Your task to perform on an android device: install app "Pandora - Music & Podcasts" Image 0: 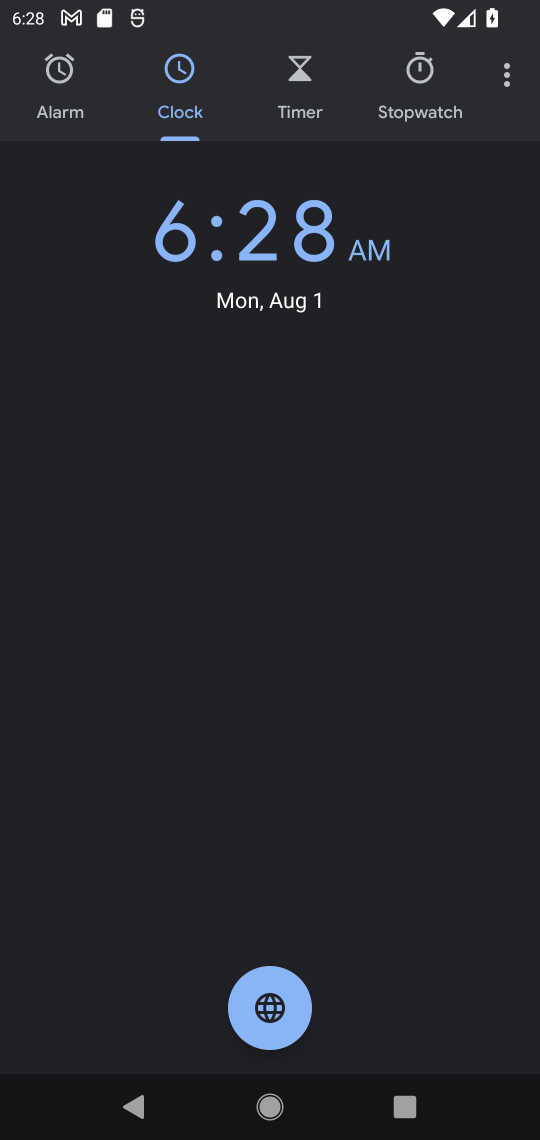
Step 0: press back button
Your task to perform on an android device: install app "Pandora - Music & Podcasts" Image 1: 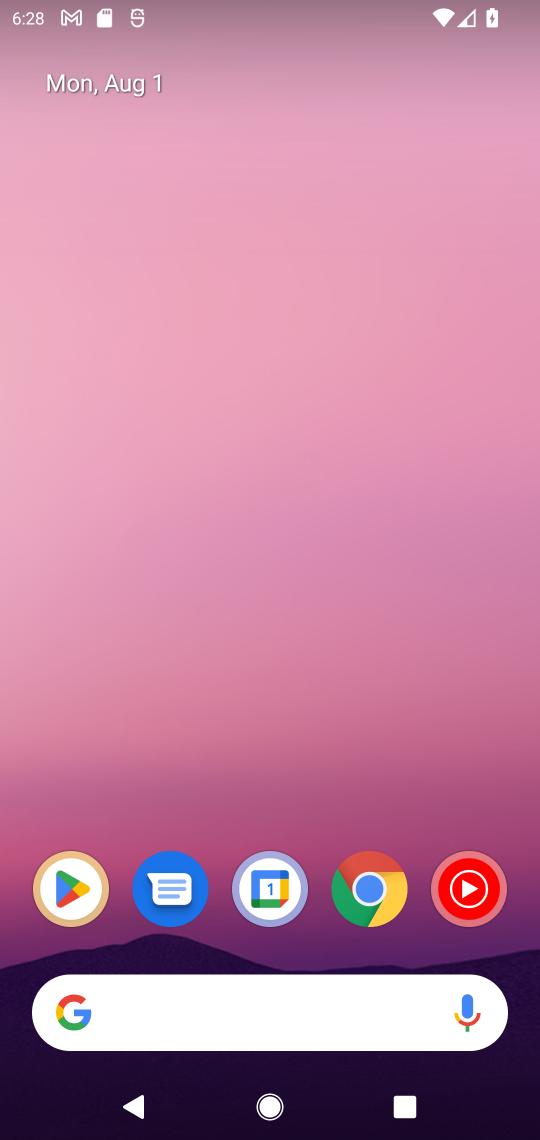
Step 1: drag from (291, 670) to (274, 261)
Your task to perform on an android device: install app "Pandora - Music & Podcasts" Image 2: 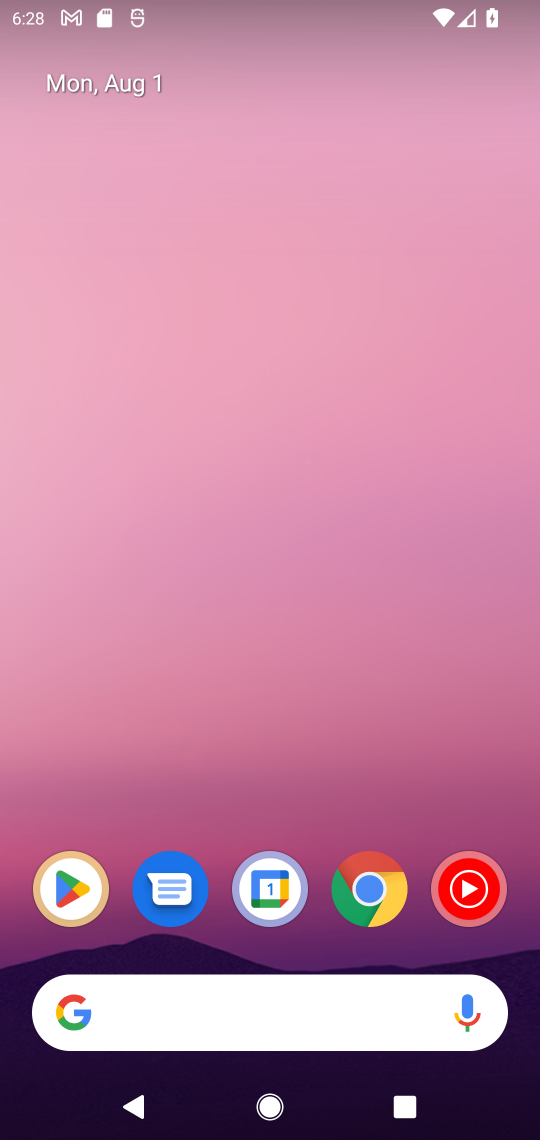
Step 2: drag from (253, 415) to (210, 247)
Your task to perform on an android device: install app "Pandora - Music & Podcasts" Image 3: 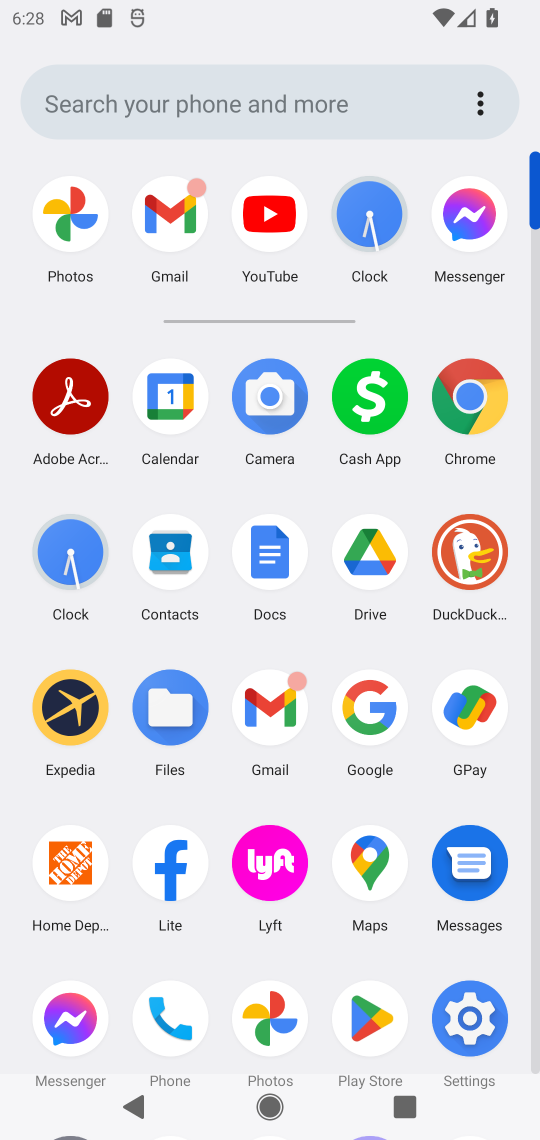
Step 3: drag from (253, 752) to (228, 311)
Your task to perform on an android device: install app "Pandora - Music & Podcasts" Image 4: 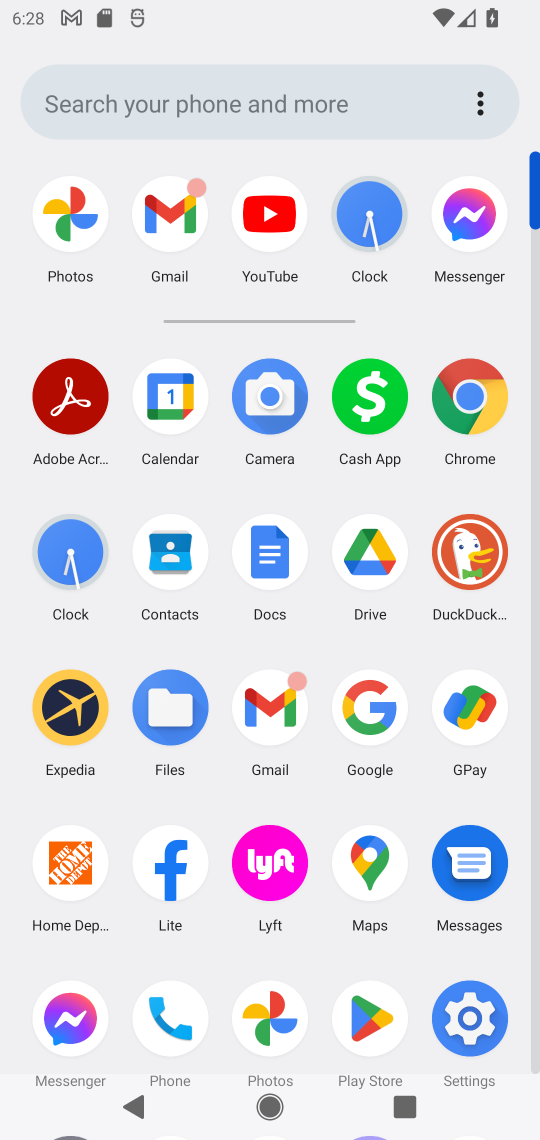
Step 4: click (366, 1024)
Your task to perform on an android device: install app "Pandora - Music & Podcasts" Image 5: 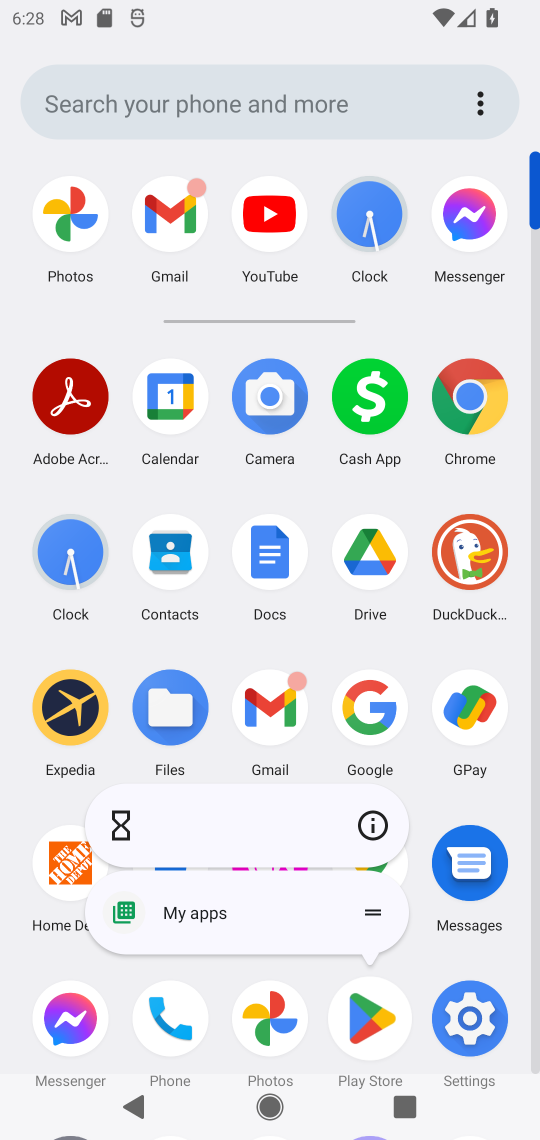
Step 5: click (368, 1025)
Your task to perform on an android device: install app "Pandora - Music & Podcasts" Image 6: 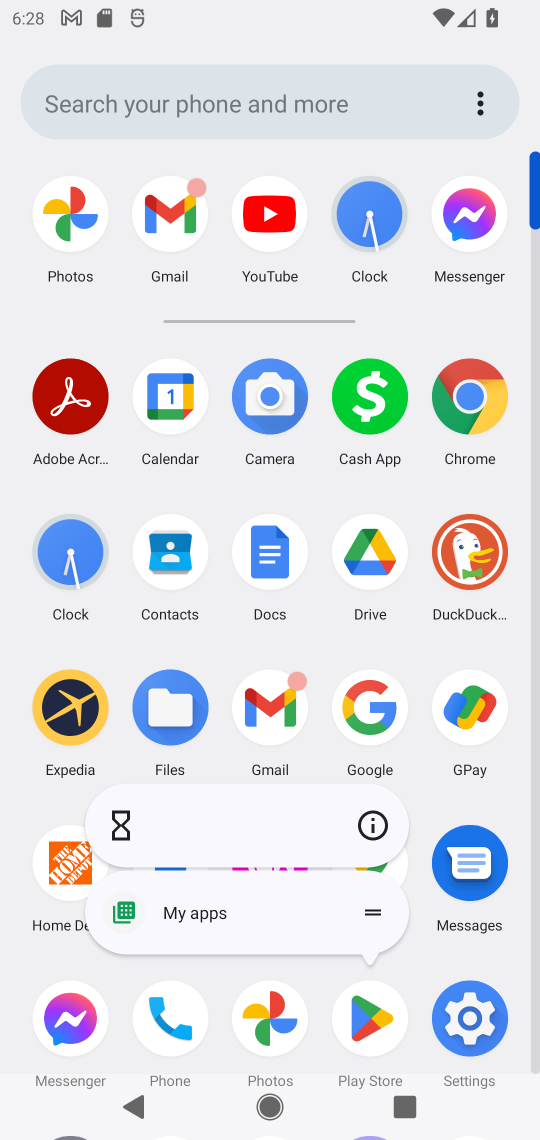
Step 6: click (374, 1034)
Your task to perform on an android device: install app "Pandora - Music & Podcasts" Image 7: 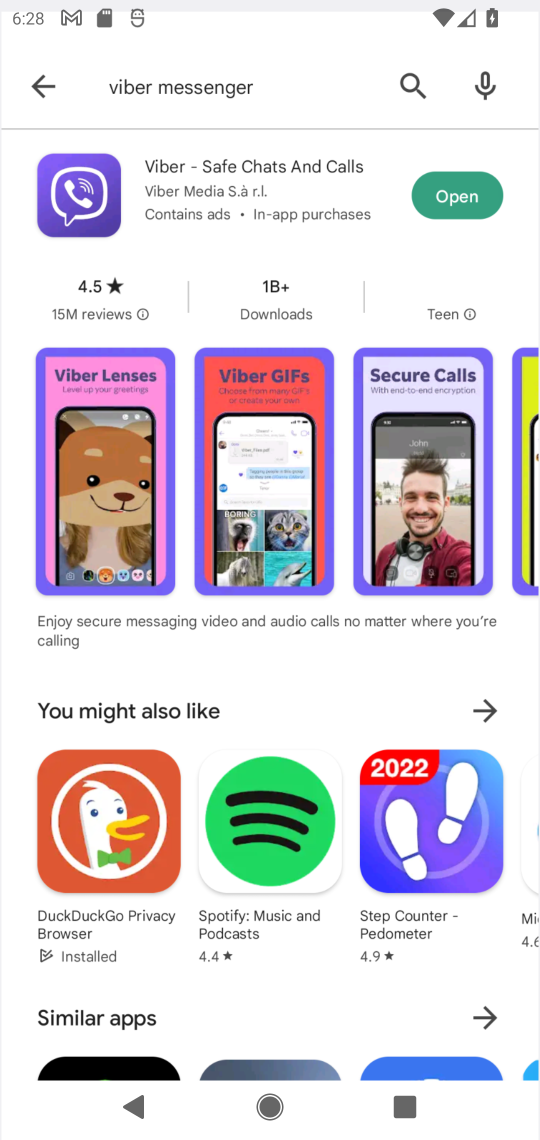
Step 7: click (375, 1041)
Your task to perform on an android device: install app "Pandora - Music & Podcasts" Image 8: 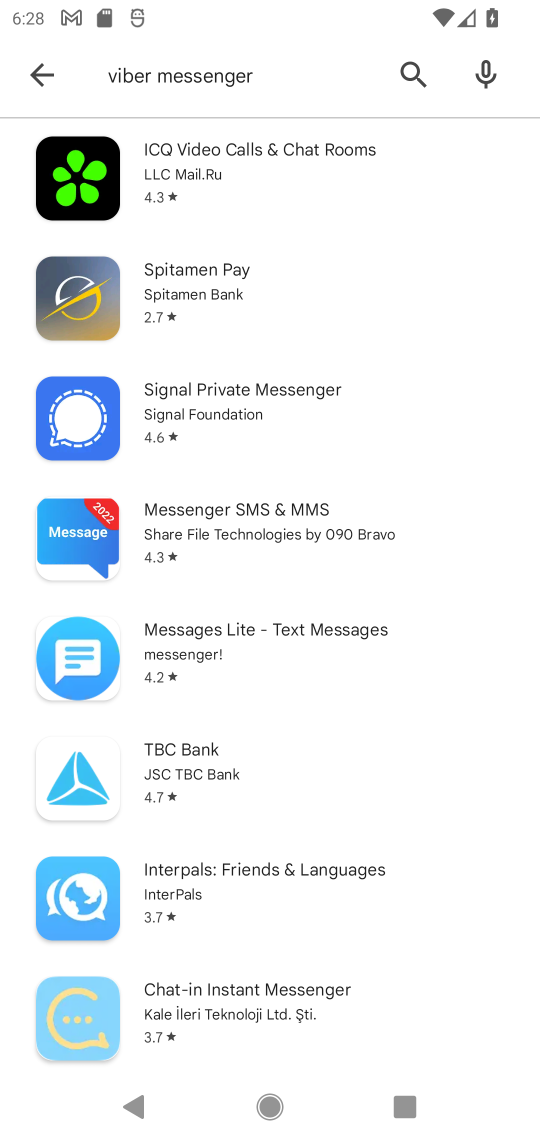
Step 8: click (37, 70)
Your task to perform on an android device: install app "Pandora - Music & Podcasts" Image 9: 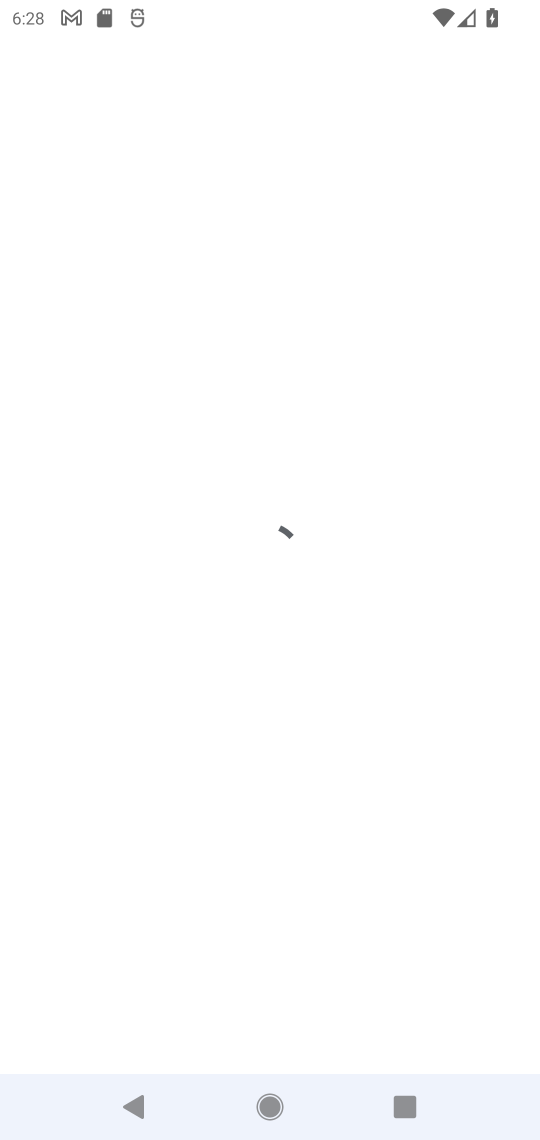
Step 9: click (162, 72)
Your task to perform on an android device: install app "Pandora - Music & Podcasts" Image 10: 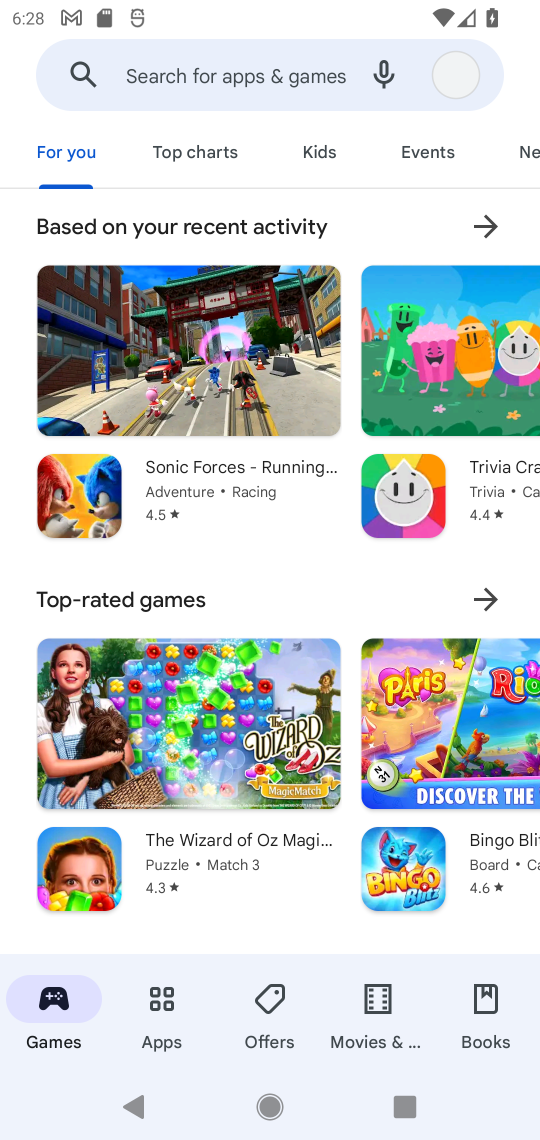
Step 10: click (160, 70)
Your task to perform on an android device: install app "Pandora - Music & Podcasts" Image 11: 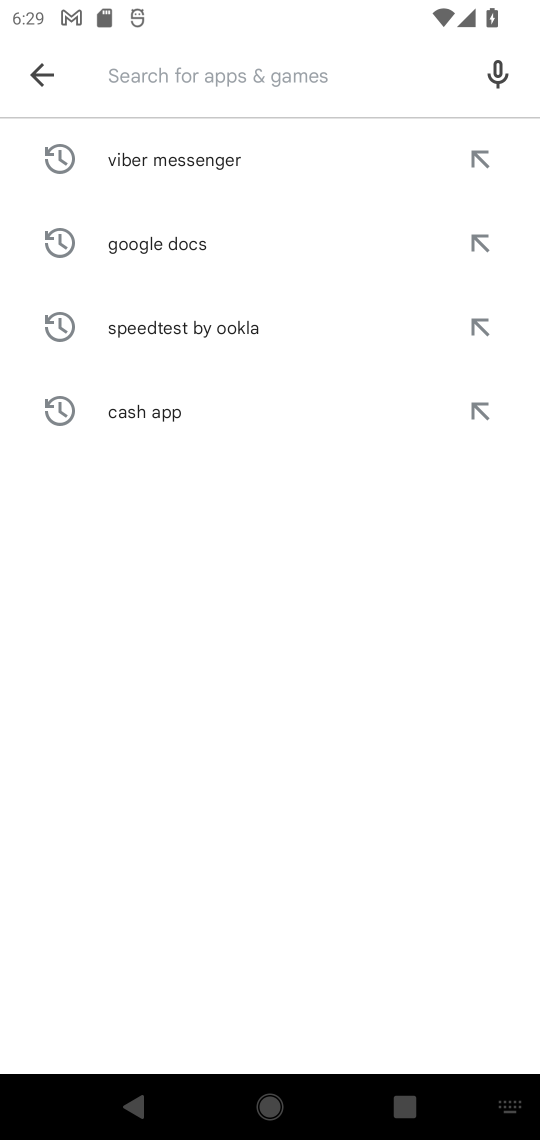
Step 11: type "Pandora-"
Your task to perform on an android device: install app "Pandora - Music & Podcasts" Image 12: 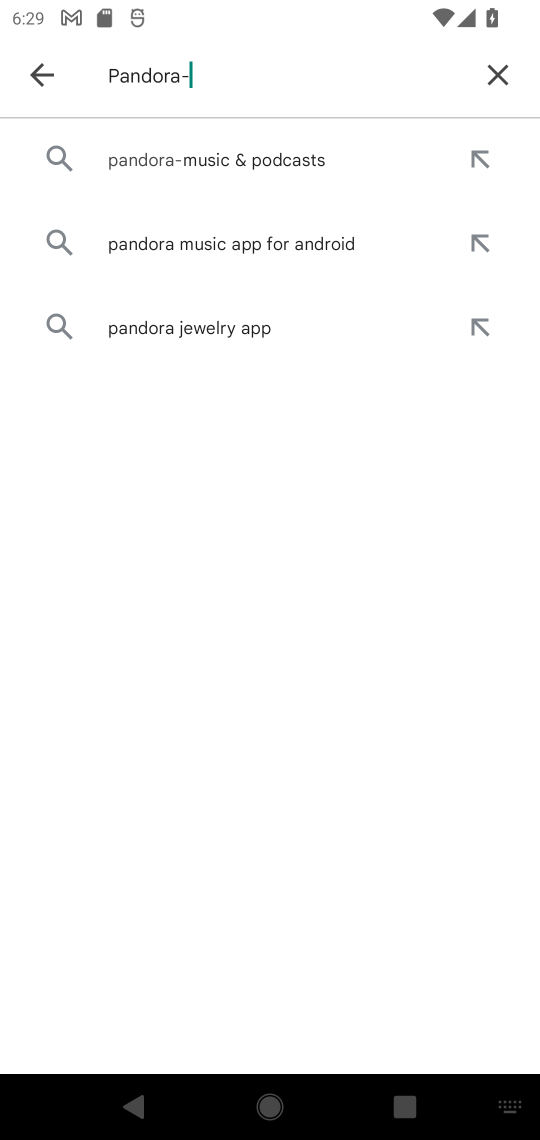
Step 12: click (290, 154)
Your task to perform on an android device: install app "Pandora - Music & Podcasts" Image 13: 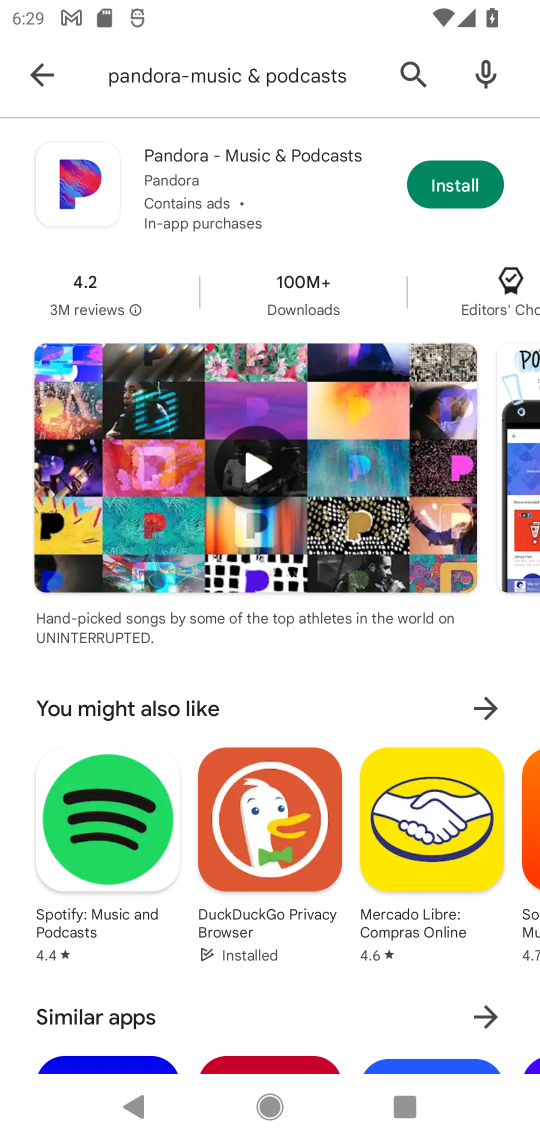
Step 13: click (459, 180)
Your task to perform on an android device: install app "Pandora - Music & Podcasts" Image 14: 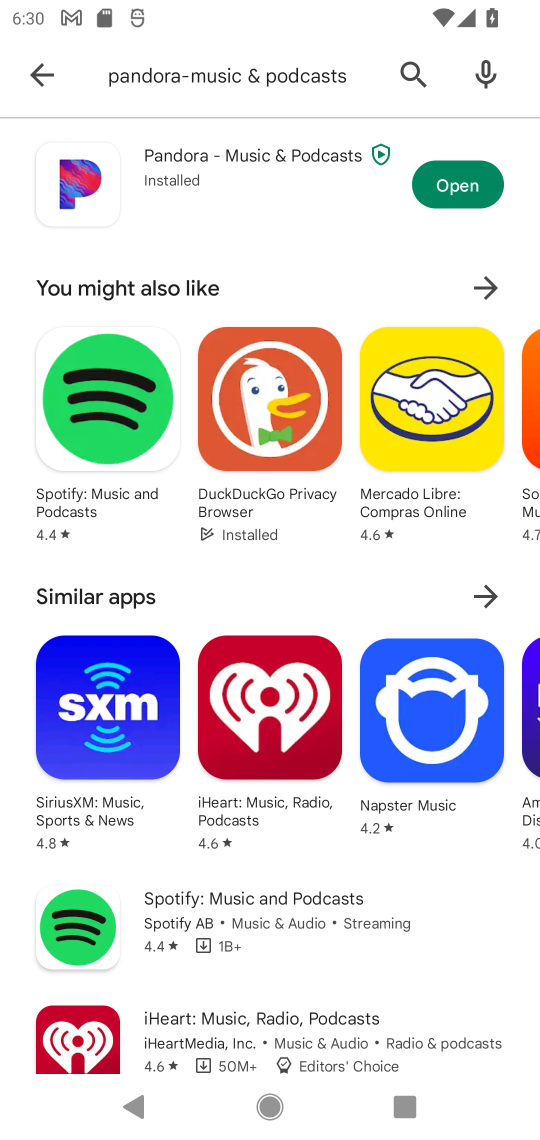
Step 14: click (496, 177)
Your task to perform on an android device: install app "Pandora - Music & Podcasts" Image 15: 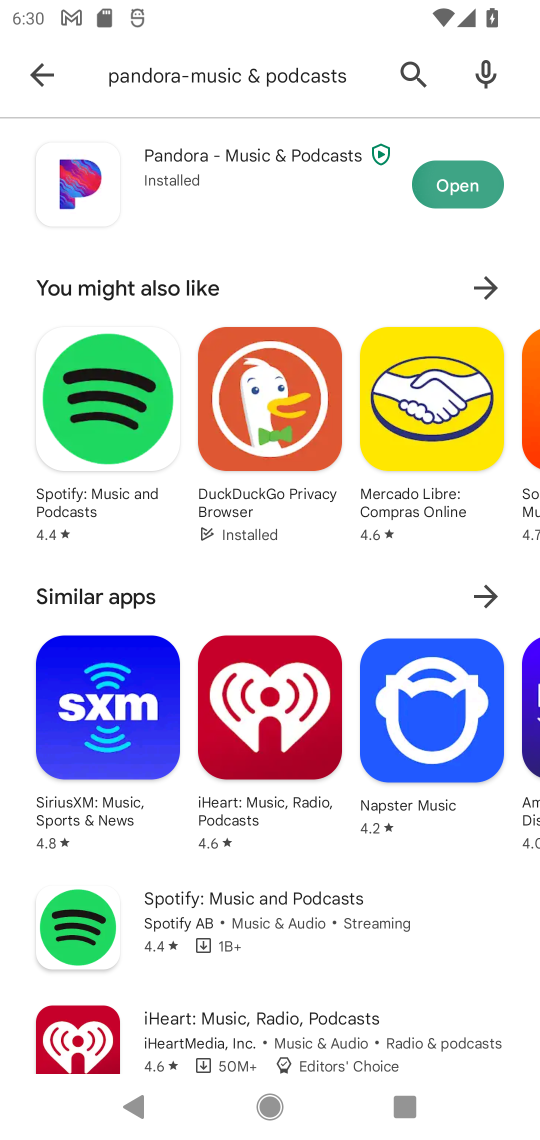
Step 15: click (450, 177)
Your task to perform on an android device: install app "Pandora - Music & Podcasts" Image 16: 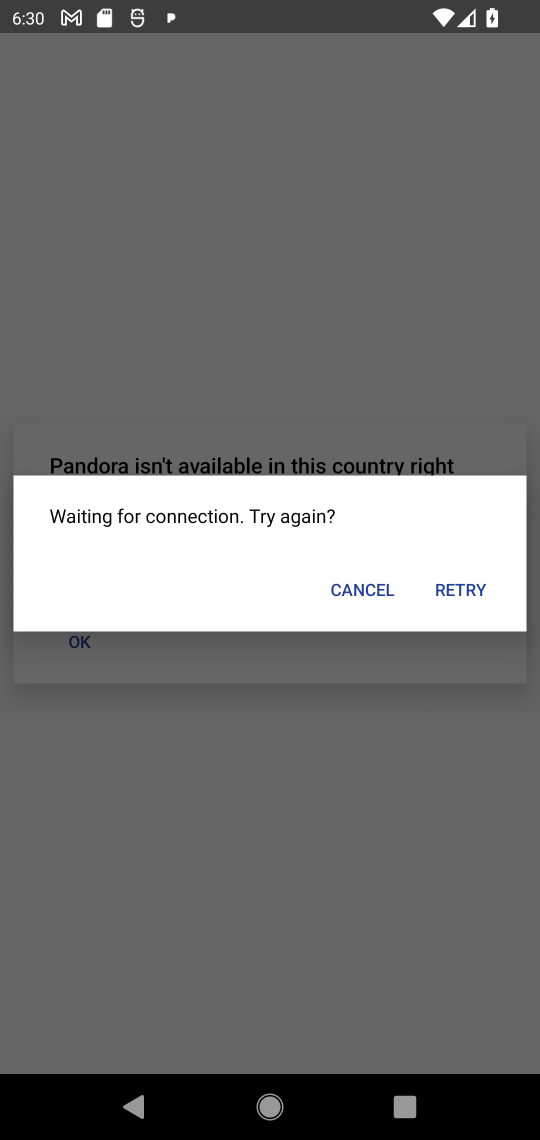
Step 16: click (441, 582)
Your task to perform on an android device: install app "Pandora - Music & Podcasts" Image 17: 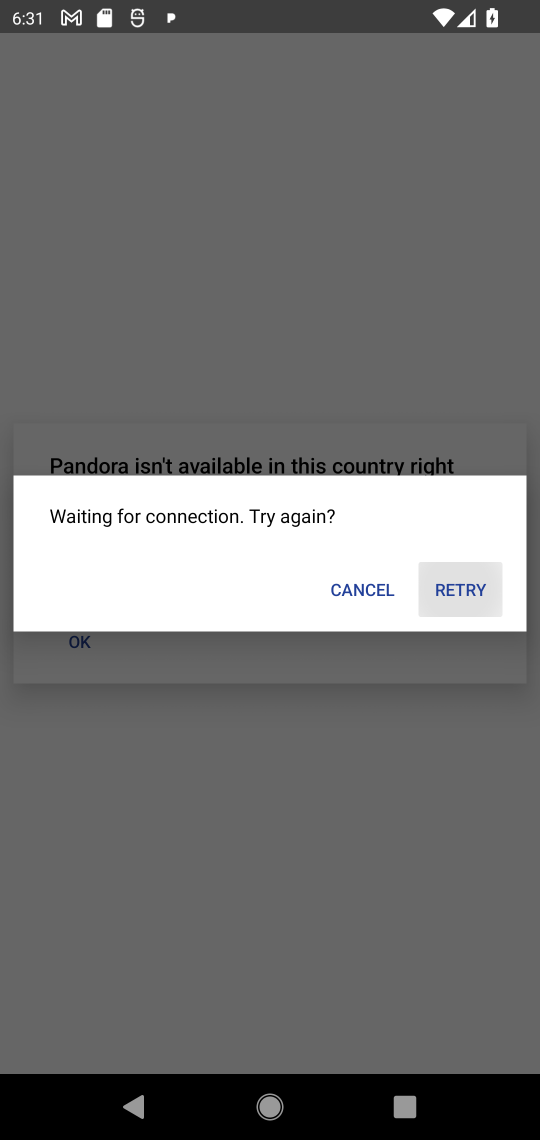
Step 17: click (444, 583)
Your task to perform on an android device: install app "Pandora - Music & Podcasts" Image 18: 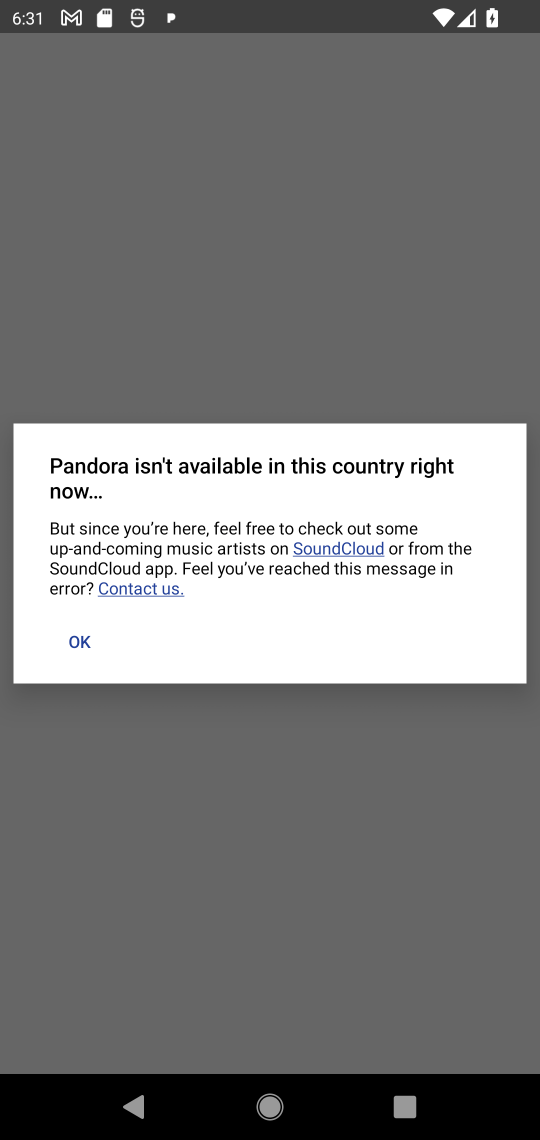
Step 18: click (79, 641)
Your task to perform on an android device: install app "Pandora - Music & Podcasts" Image 19: 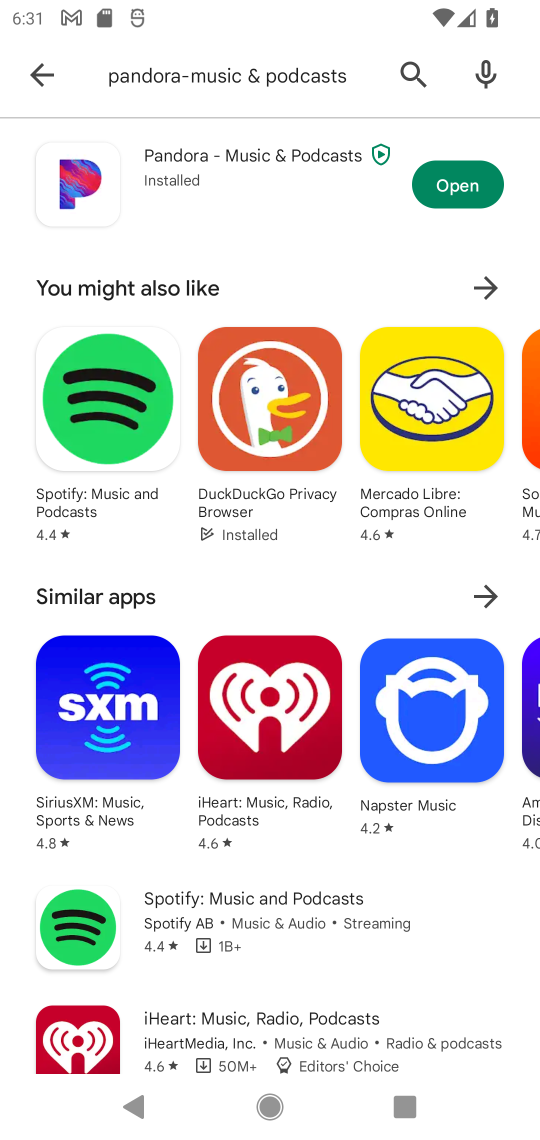
Step 19: click (443, 185)
Your task to perform on an android device: install app "Pandora - Music & Podcasts" Image 20: 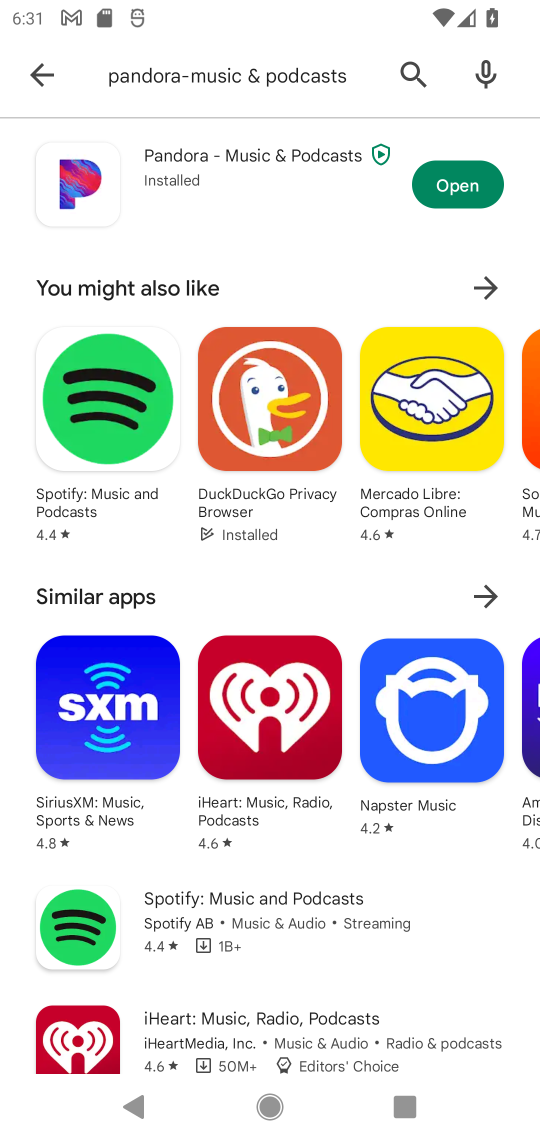
Step 20: click (444, 194)
Your task to perform on an android device: install app "Pandora - Music & Podcasts" Image 21: 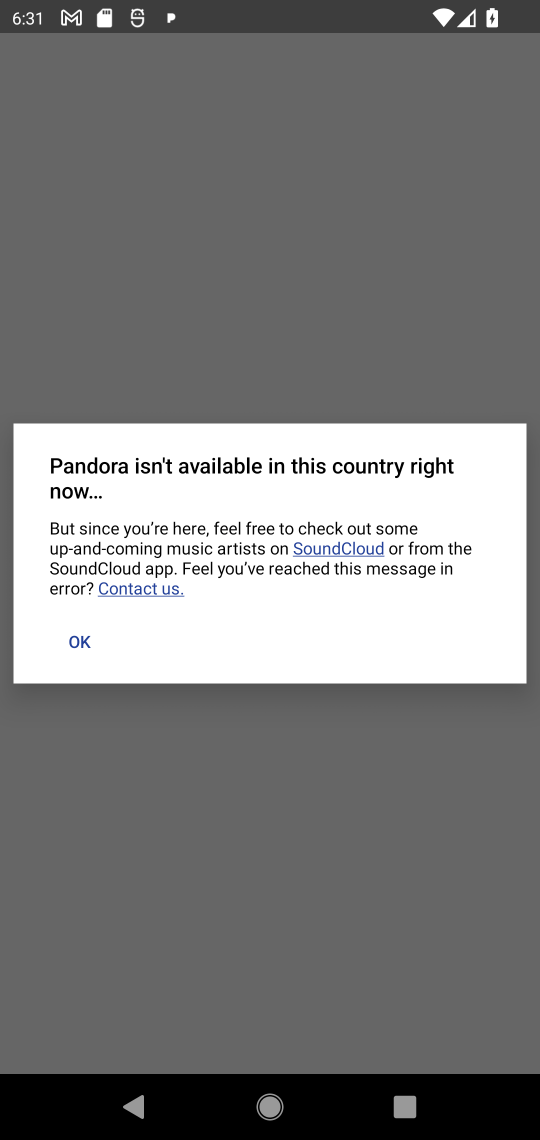
Step 21: click (85, 639)
Your task to perform on an android device: install app "Pandora - Music & Podcasts" Image 22: 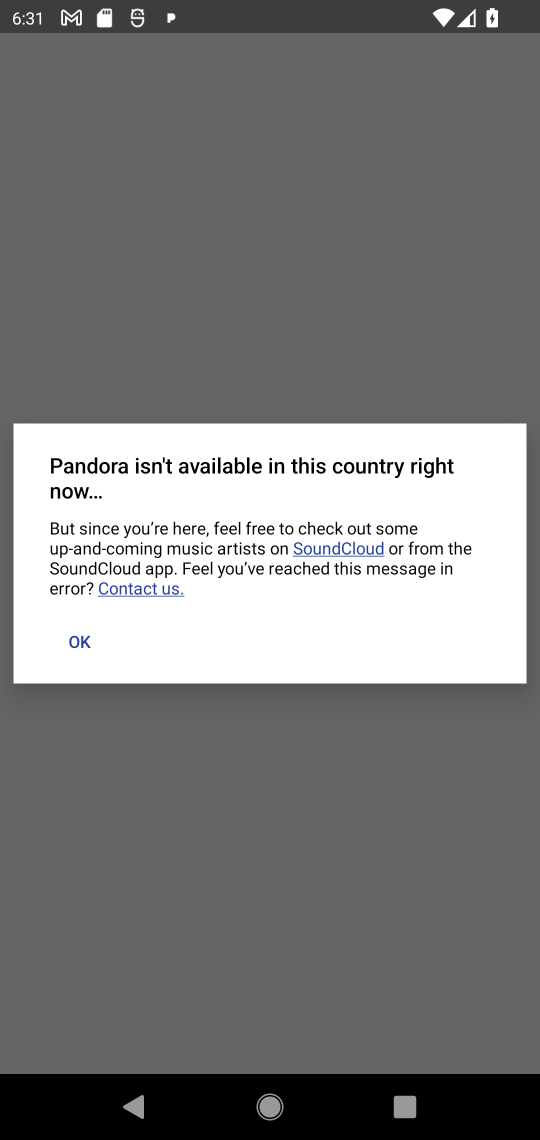
Step 22: click (82, 645)
Your task to perform on an android device: install app "Pandora - Music & Podcasts" Image 23: 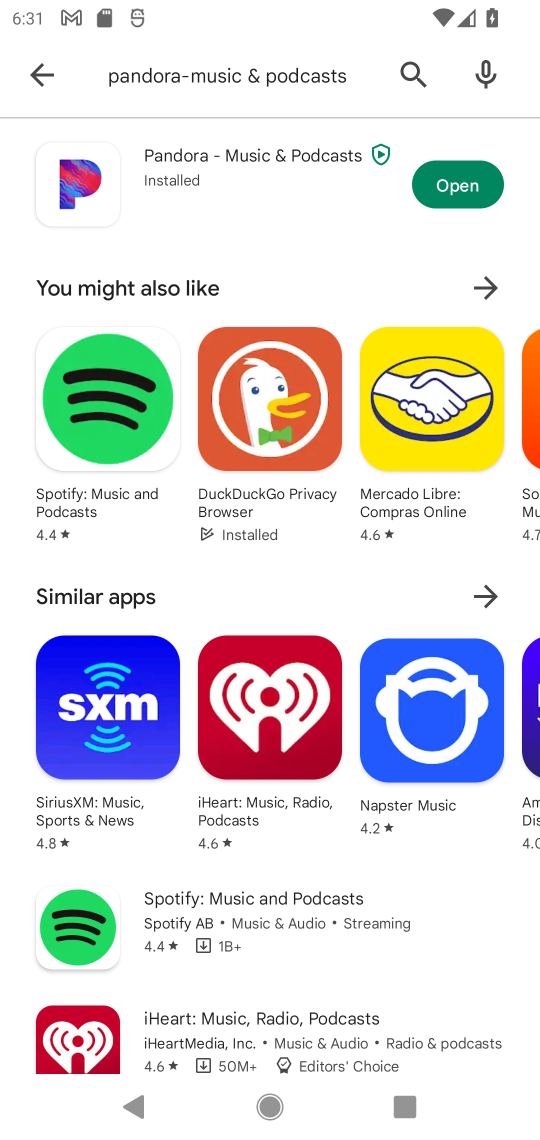
Step 23: click (449, 188)
Your task to perform on an android device: install app "Pandora - Music & Podcasts" Image 24: 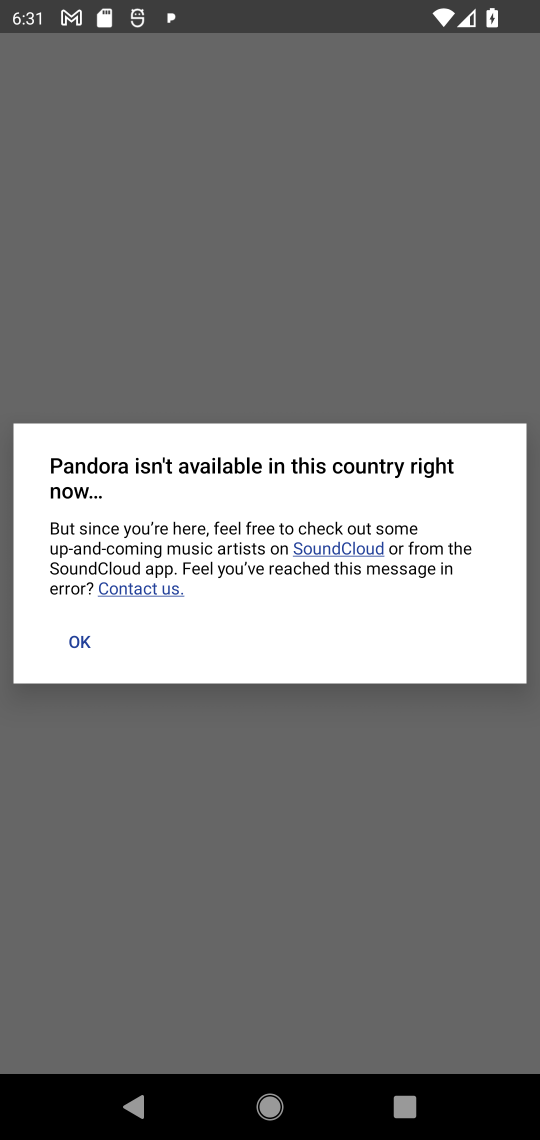
Step 24: task complete